Your task to perform on an android device: turn off airplane mode Image 0: 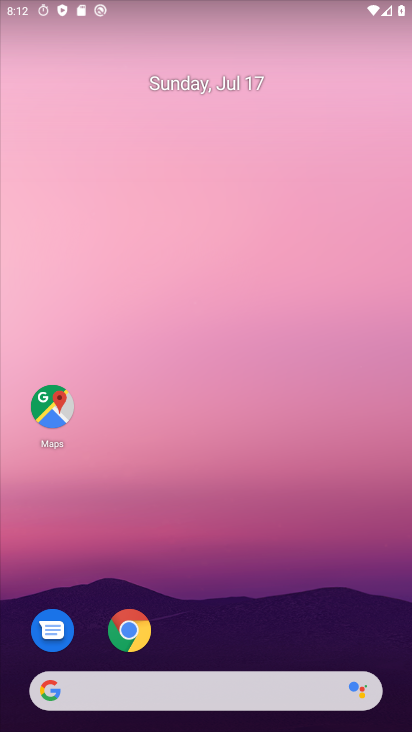
Step 0: drag from (11, 693) to (204, 151)
Your task to perform on an android device: turn off airplane mode Image 1: 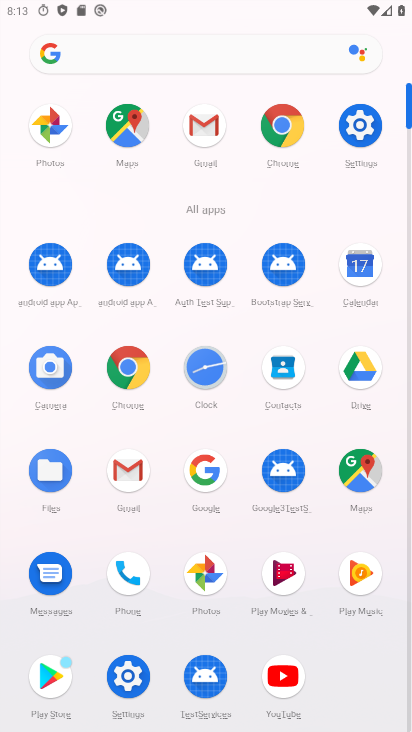
Step 1: click (135, 668)
Your task to perform on an android device: turn off airplane mode Image 2: 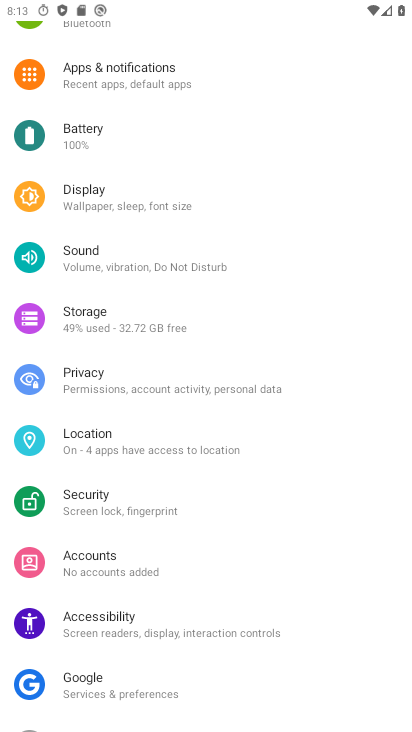
Step 2: drag from (243, 71) to (373, 600)
Your task to perform on an android device: turn off airplane mode Image 3: 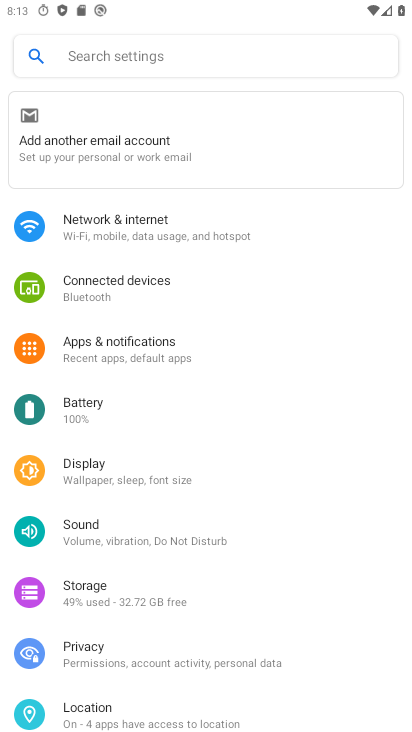
Step 3: click (150, 231)
Your task to perform on an android device: turn off airplane mode Image 4: 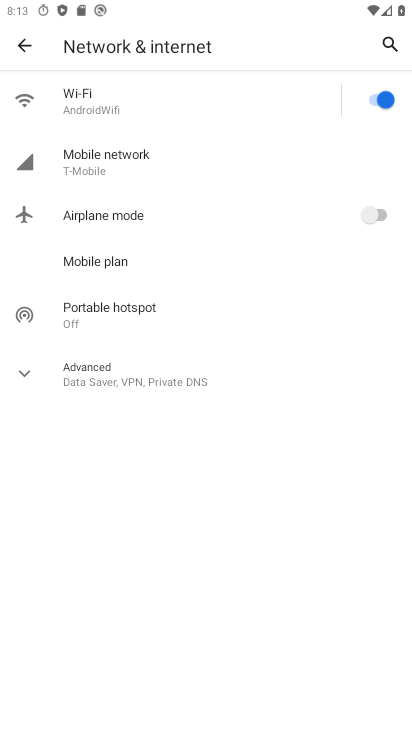
Step 4: click (383, 215)
Your task to perform on an android device: turn off airplane mode Image 5: 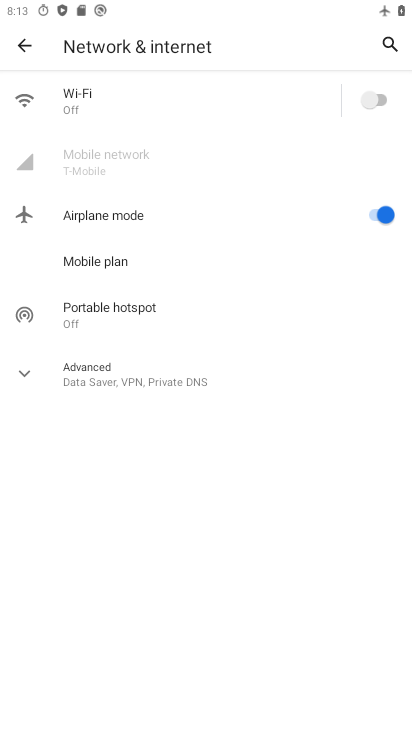
Step 5: task complete